Your task to perform on an android device: Open display settings Image 0: 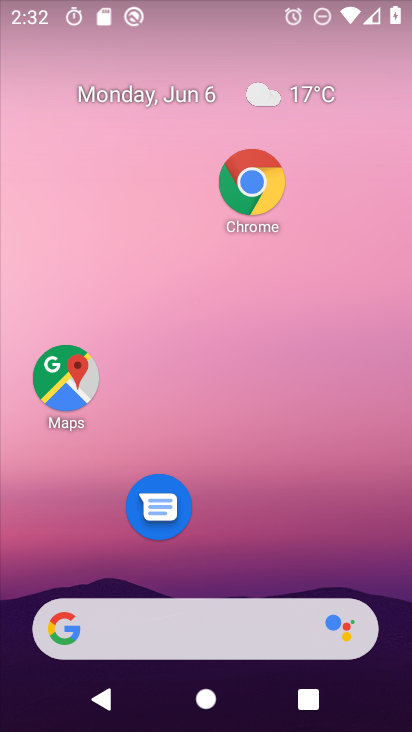
Step 0: drag from (238, 688) to (192, 106)
Your task to perform on an android device: Open display settings Image 1: 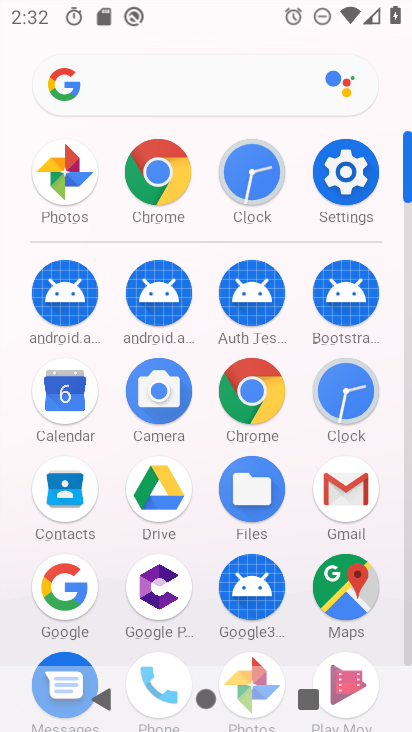
Step 1: click (340, 184)
Your task to perform on an android device: Open display settings Image 2: 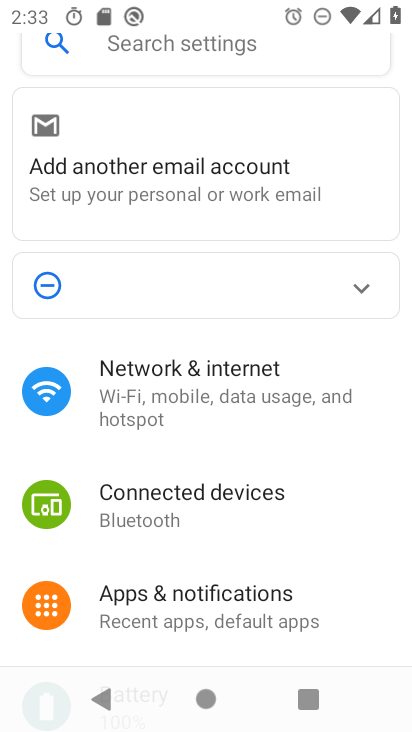
Step 2: drag from (202, 432) to (222, 305)
Your task to perform on an android device: Open display settings Image 3: 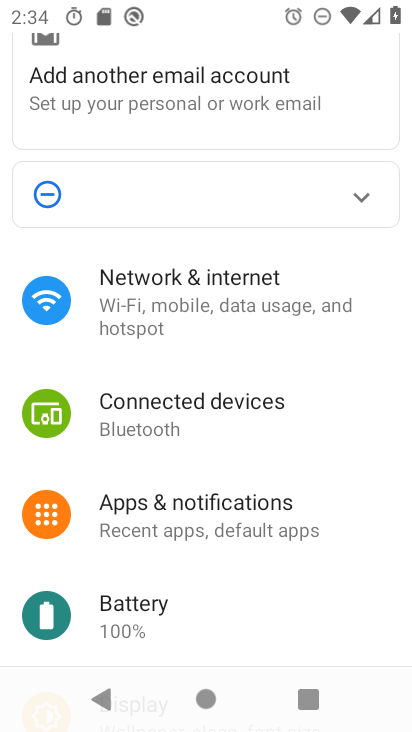
Step 3: drag from (164, 585) to (160, 395)
Your task to perform on an android device: Open display settings Image 4: 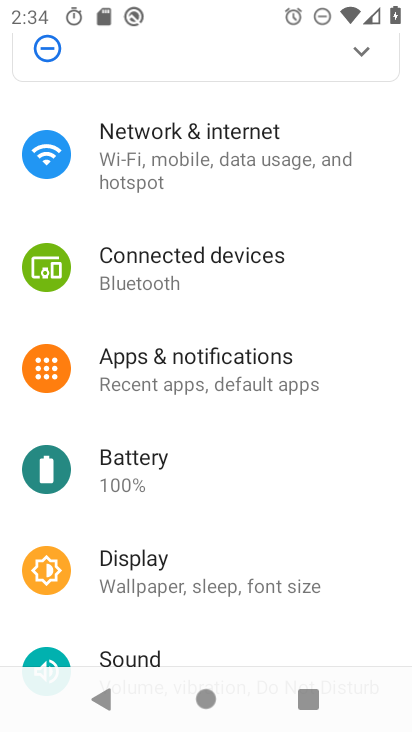
Step 4: click (163, 555)
Your task to perform on an android device: Open display settings Image 5: 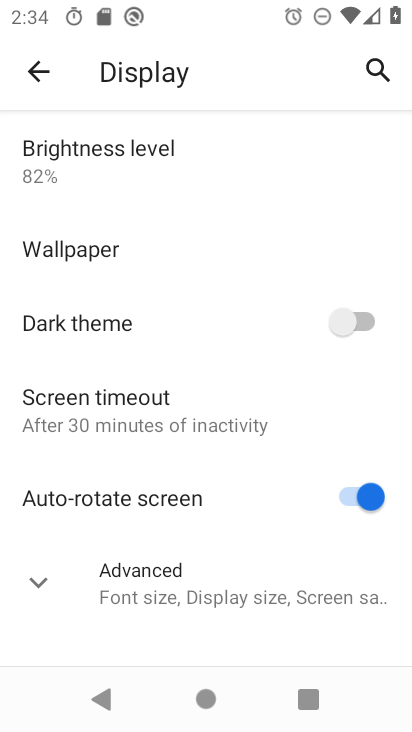
Step 5: task complete